Your task to perform on an android device: check storage Image 0: 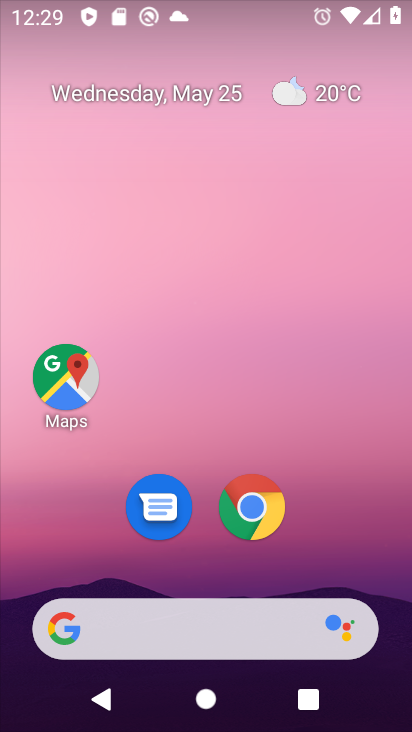
Step 0: drag from (371, 566) to (360, 201)
Your task to perform on an android device: check storage Image 1: 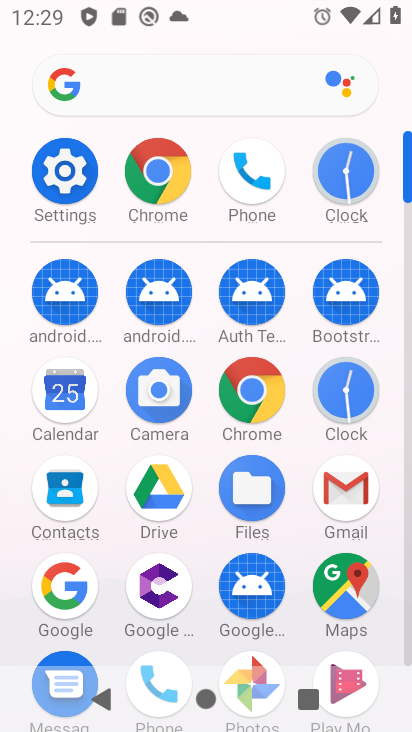
Step 1: click (64, 207)
Your task to perform on an android device: check storage Image 2: 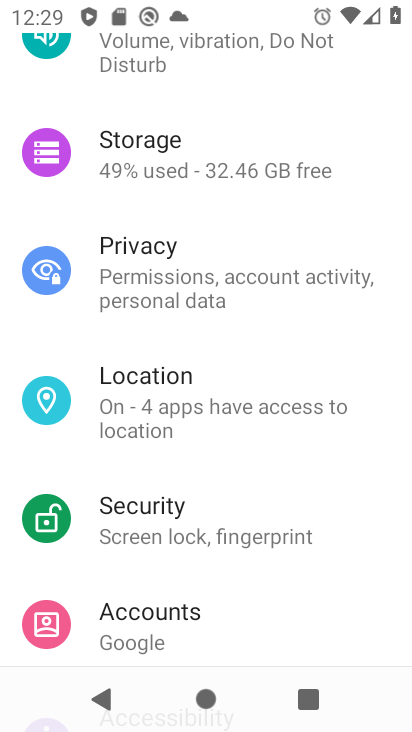
Step 2: drag from (197, 264) to (194, 517)
Your task to perform on an android device: check storage Image 3: 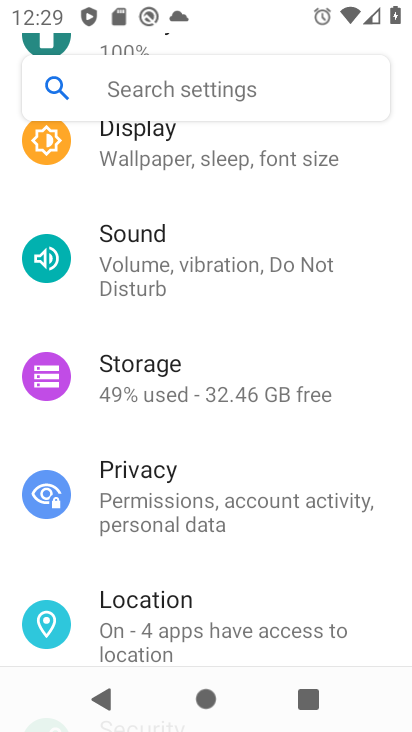
Step 3: click (152, 376)
Your task to perform on an android device: check storage Image 4: 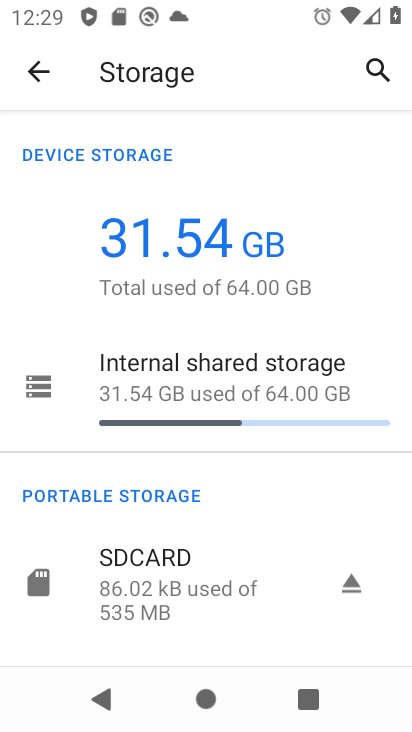
Step 4: click (44, 387)
Your task to perform on an android device: check storage Image 5: 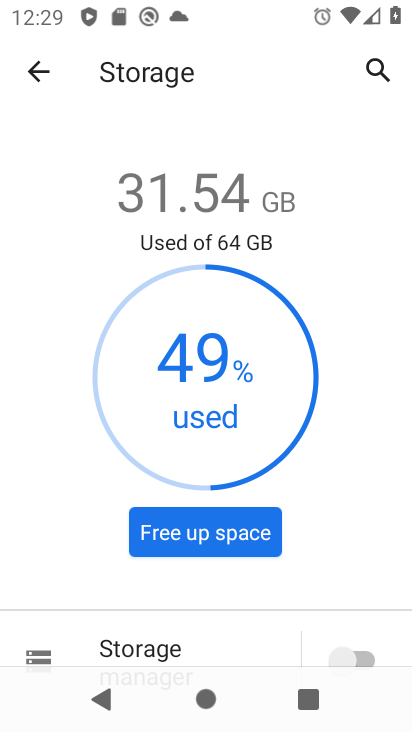
Step 5: drag from (60, 518) to (91, 260)
Your task to perform on an android device: check storage Image 6: 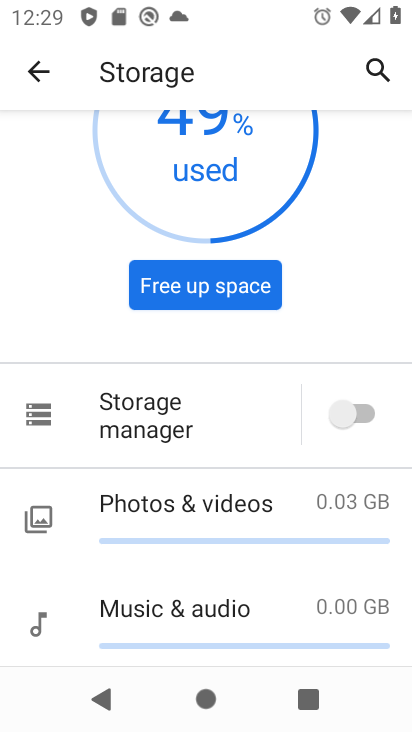
Step 6: click (60, 416)
Your task to perform on an android device: check storage Image 7: 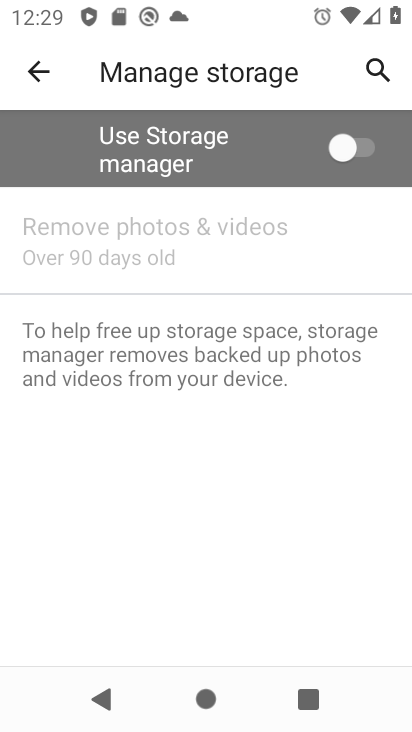
Step 7: task complete